Your task to perform on an android device: check android version Image 0: 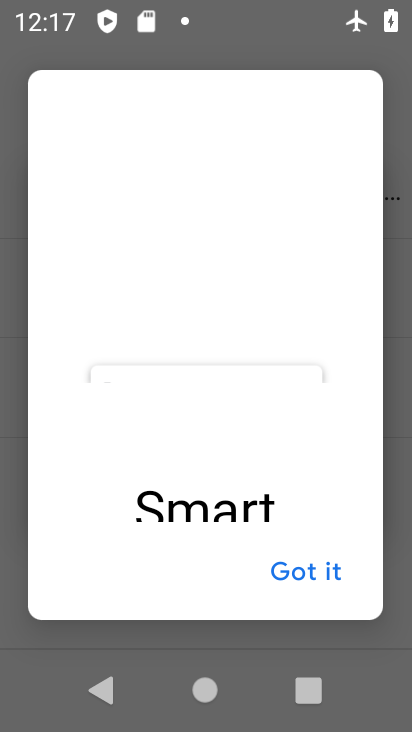
Step 0: press home button
Your task to perform on an android device: check android version Image 1: 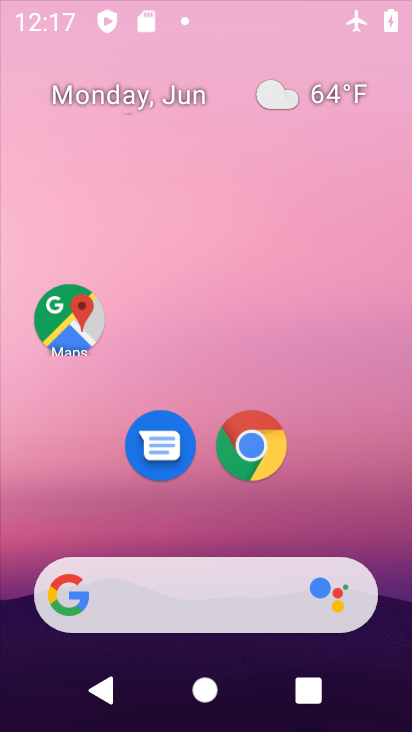
Step 1: drag from (262, 594) to (262, 7)
Your task to perform on an android device: check android version Image 2: 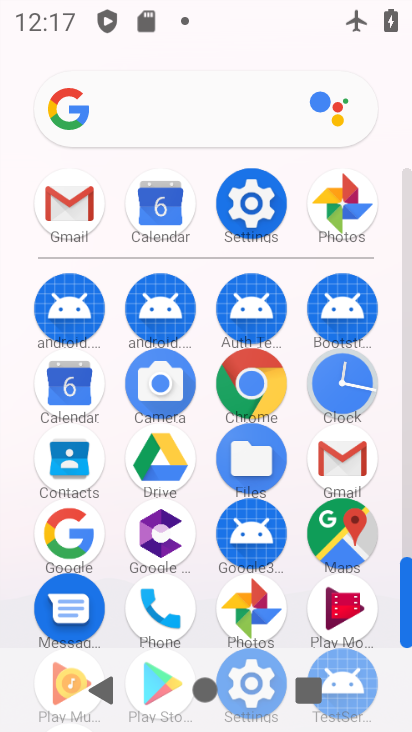
Step 2: click (222, 216)
Your task to perform on an android device: check android version Image 3: 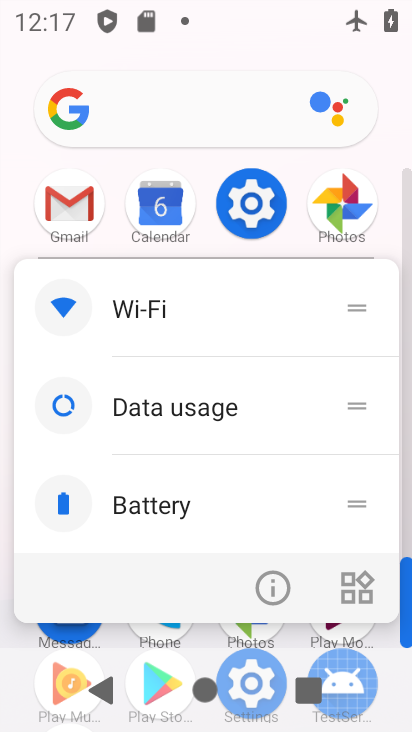
Step 3: click (252, 204)
Your task to perform on an android device: check android version Image 4: 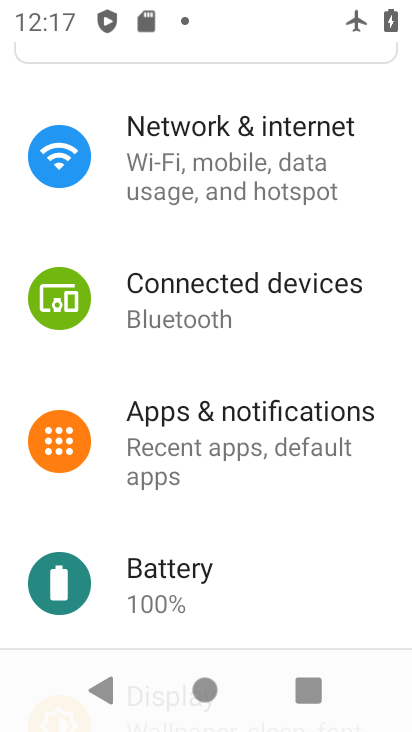
Step 4: drag from (244, 633) to (338, 7)
Your task to perform on an android device: check android version Image 5: 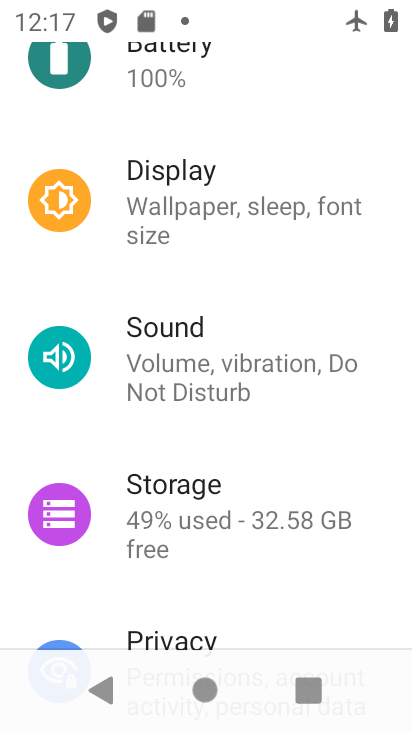
Step 5: drag from (301, 631) to (287, 146)
Your task to perform on an android device: check android version Image 6: 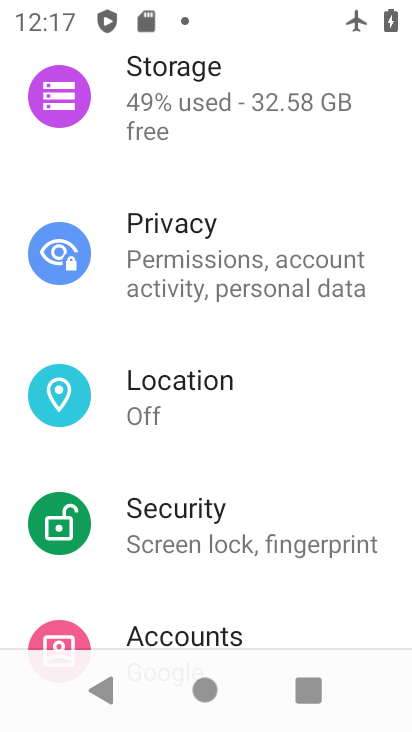
Step 6: drag from (318, 601) to (279, 114)
Your task to perform on an android device: check android version Image 7: 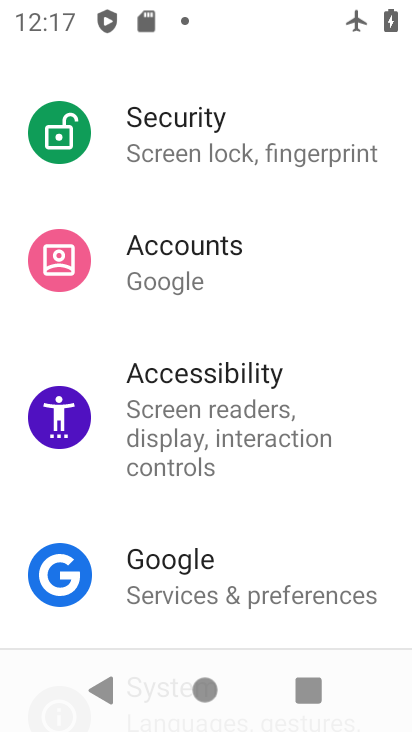
Step 7: drag from (219, 539) to (238, 38)
Your task to perform on an android device: check android version Image 8: 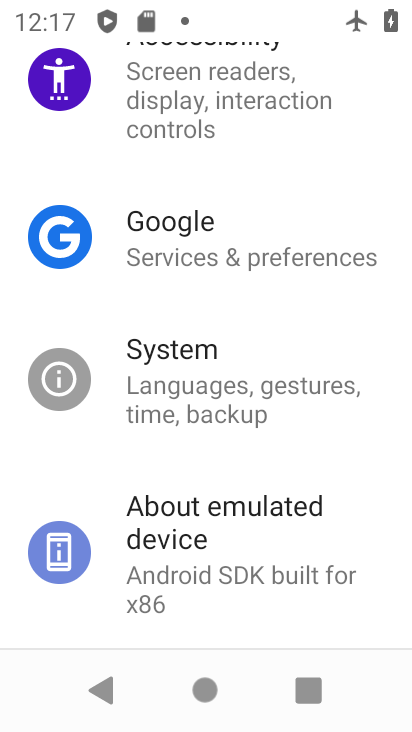
Step 8: click (247, 533)
Your task to perform on an android device: check android version Image 9: 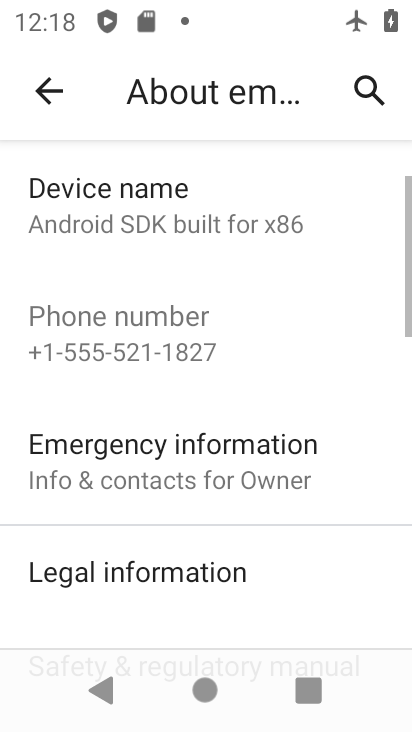
Step 9: task complete